Your task to perform on an android device: Go to location settings Image 0: 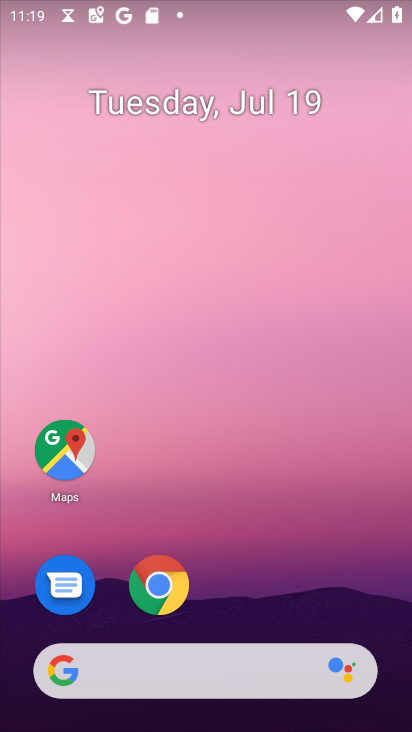
Step 0: press home button
Your task to perform on an android device: Go to location settings Image 1: 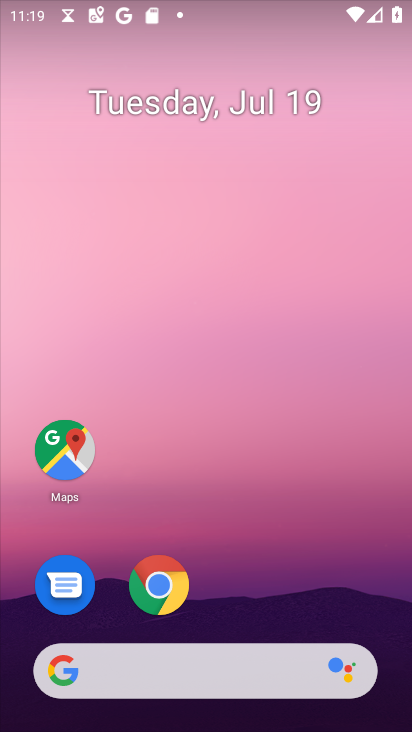
Step 1: drag from (176, 672) to (287, 97)
Your task to perform on an android device: Go to location settings Image 2: 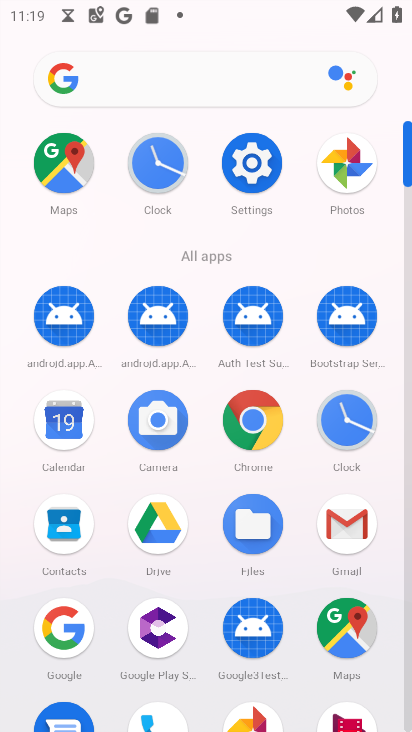
Step 2: click (259, 166)
Your task to perform on an android device: Go to location settings Image 3: 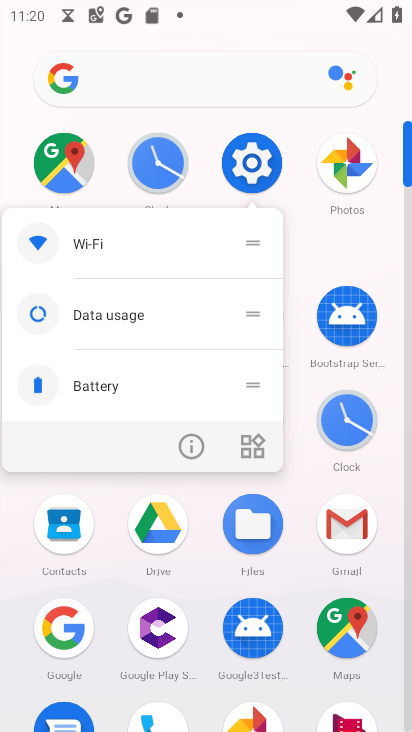
Step 3: click (253, 161)
Your task to perform on an android device: Go to location settings Image 4: 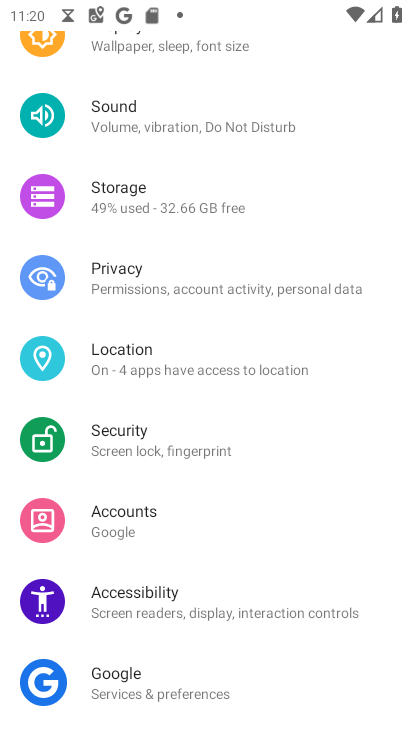
Step 4: click (151, 359)
Your task to perform on an android device: Go to location settings Image 5: 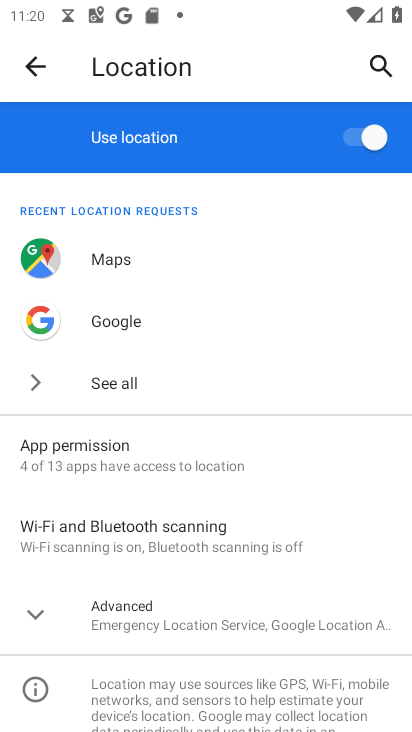
Step 5: task complete